Your task to perform on an android device: Open battery settings Image 0: 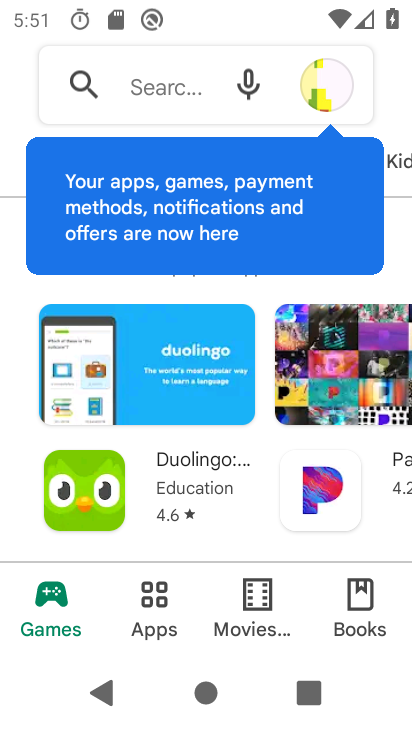
Step 0: press home button
Your task to perform on an android device: Open battery settings Image 1: 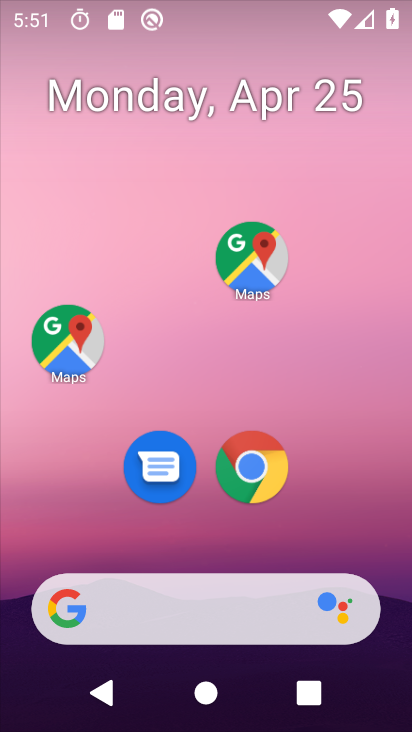
Step 1: drag from (286, 606) to (317, 0)
Your task to perform on an android device: Open battery settings Image 2: 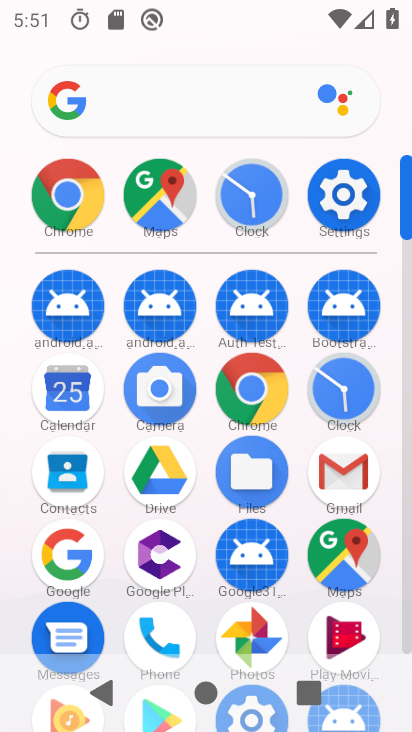
Step 2: drag from (291, 620) to (324, 175)
Your task to perform on an android device: Open battery settings Image 3: 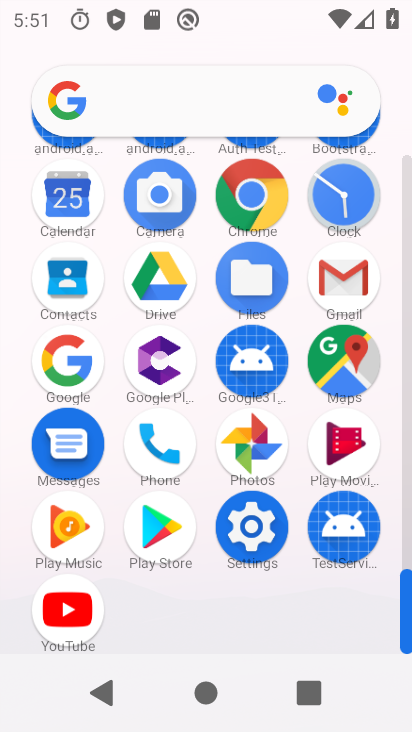
Step 3: click (253, 534)
Your task to perform on an android device: Open battery settings Image 4: 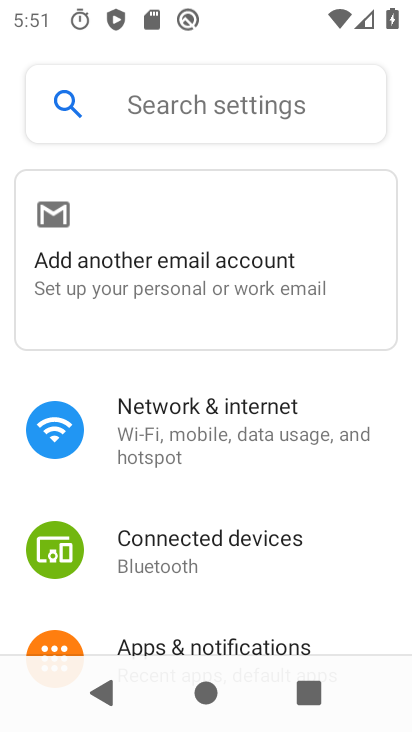
Step 4: drag from (263, 548) to (293, 201)
Your task to perform on an android device: Open battery settings Image 5: 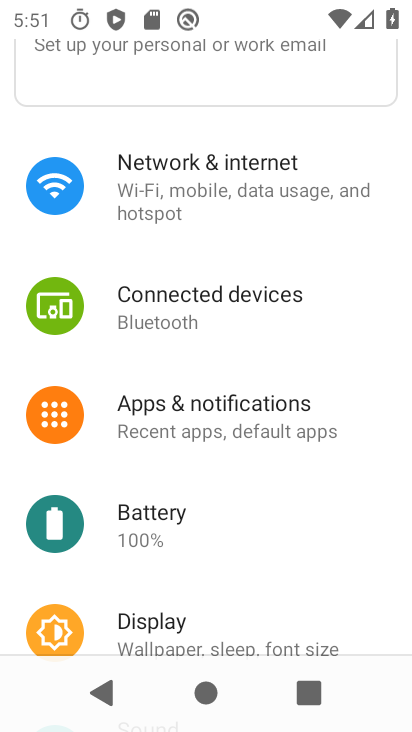
Step 5: click (155, 518)
Your task to perform on an android device: Open battery settings Image 6: 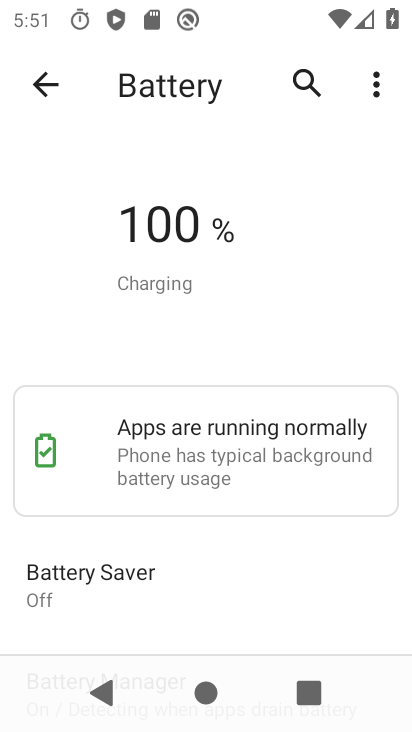
Step 6: task complete